Your task to perform on an android device: Add "usb-c to usb-a" to the cart on bestbuy Image 0: 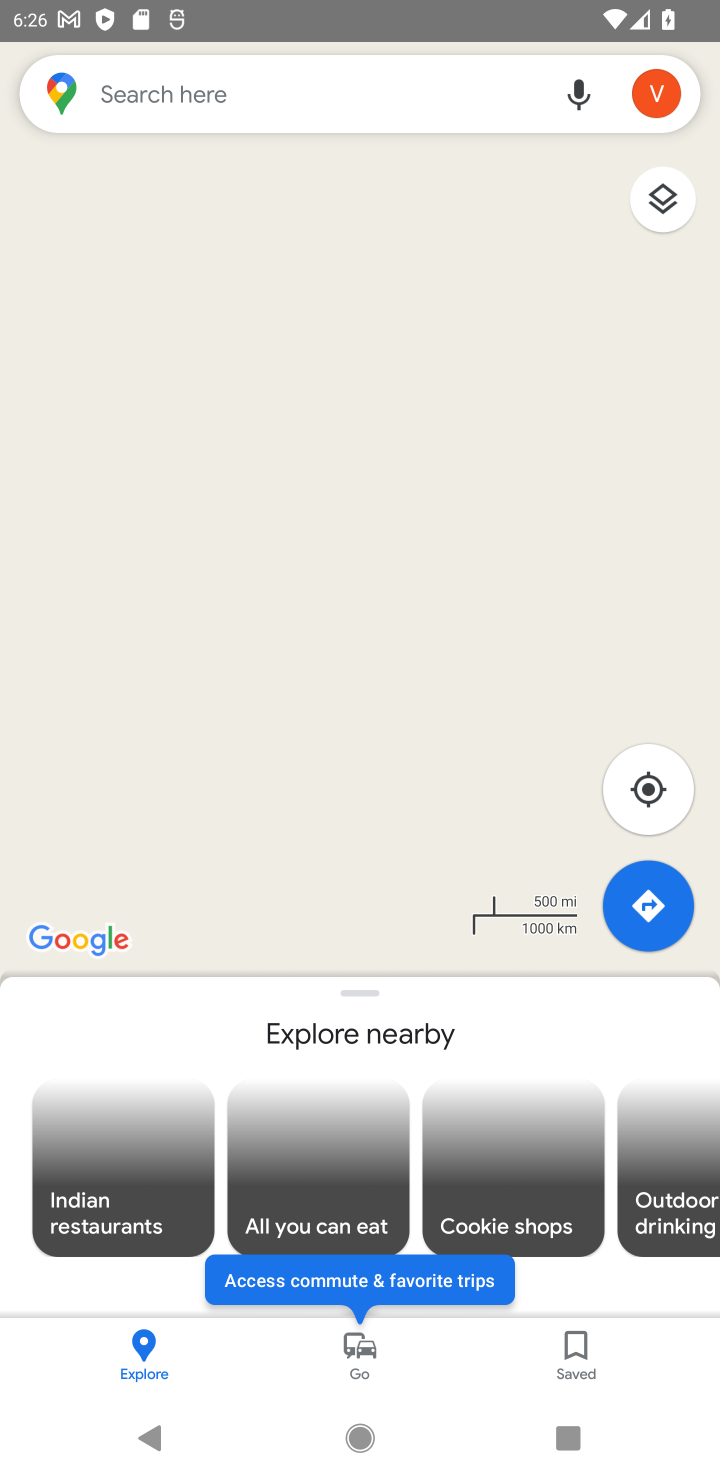
Step 0: press home button
Your task to perform on an android device: Add "usb-c to usb-a" to the cart on bestbuy Image 1: 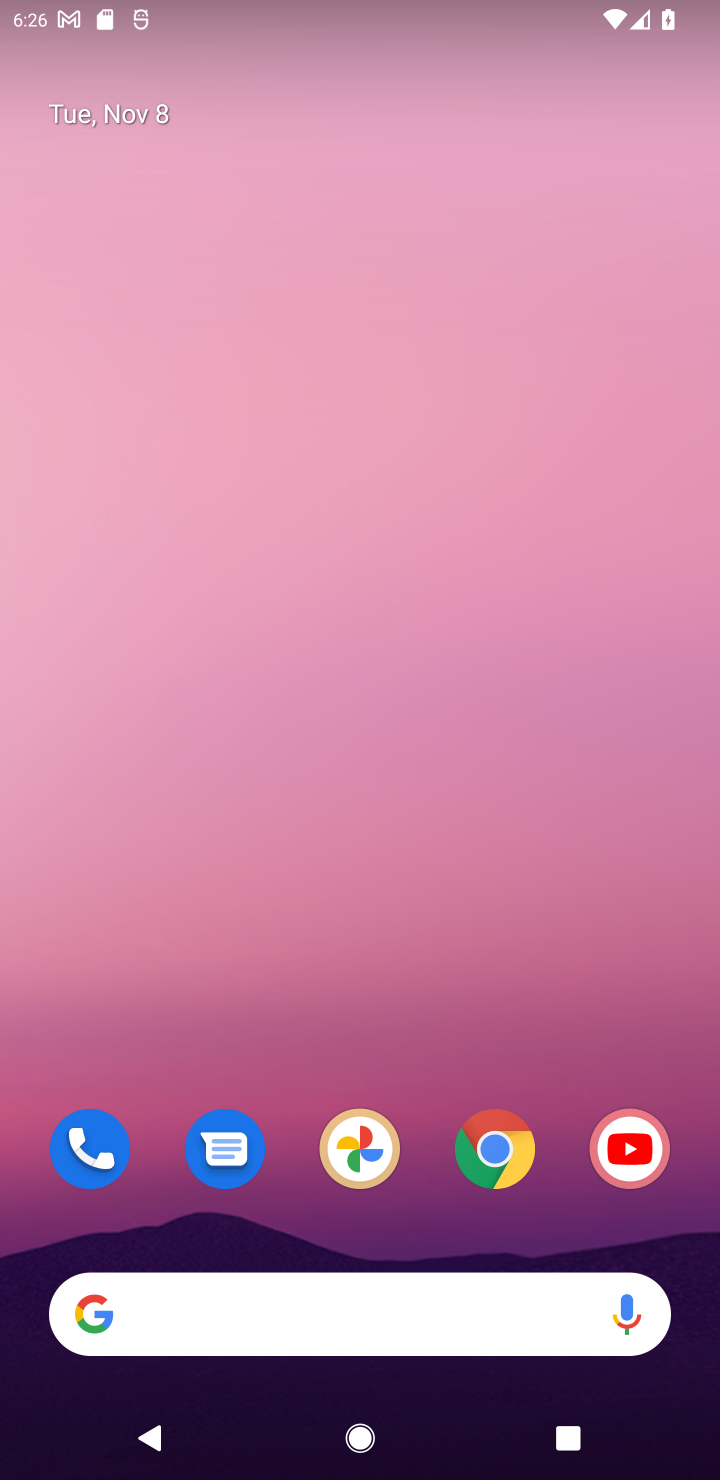
Step 1: click (504, 1148)
Your task to perform on an android device: Add "usb-c to usb-a" to the cart on bestbuy Image 2: 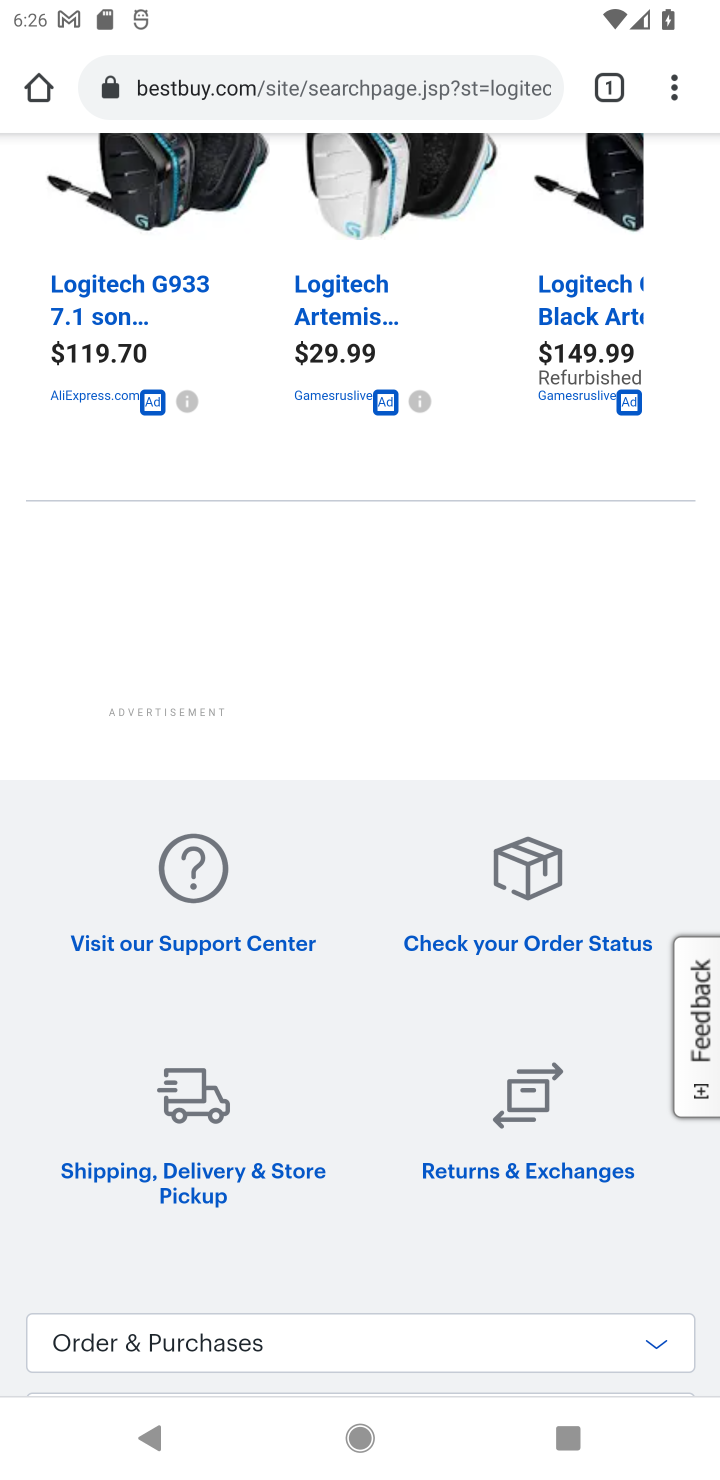
Step 2: click (455, 78)
Your task to perform on an android device: Add "usb-c to usb-a" to the cart on bestbuy Image 3: 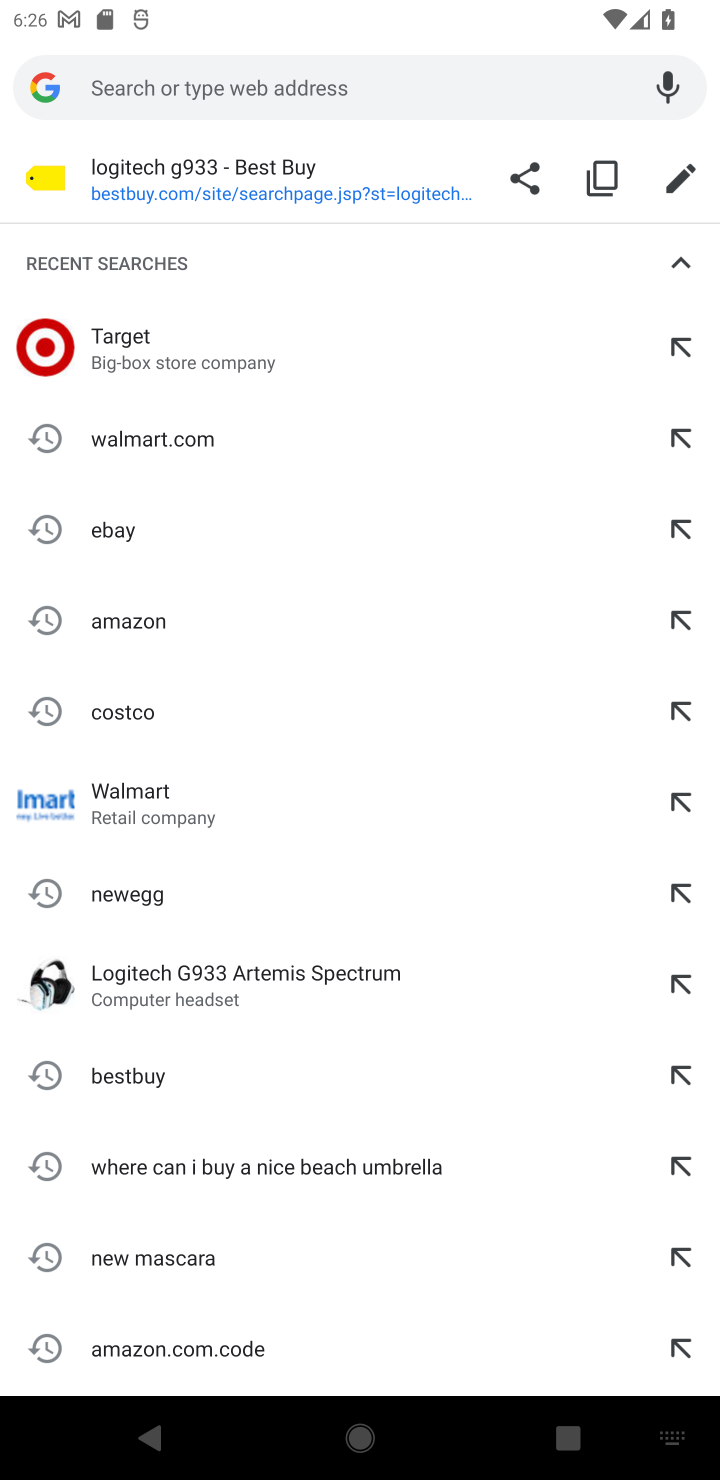
Step 3: type "bestbuy"
Your task to perform on an android device: Add "usb-c to usb-a" to the cart on bestbuy Image 4: 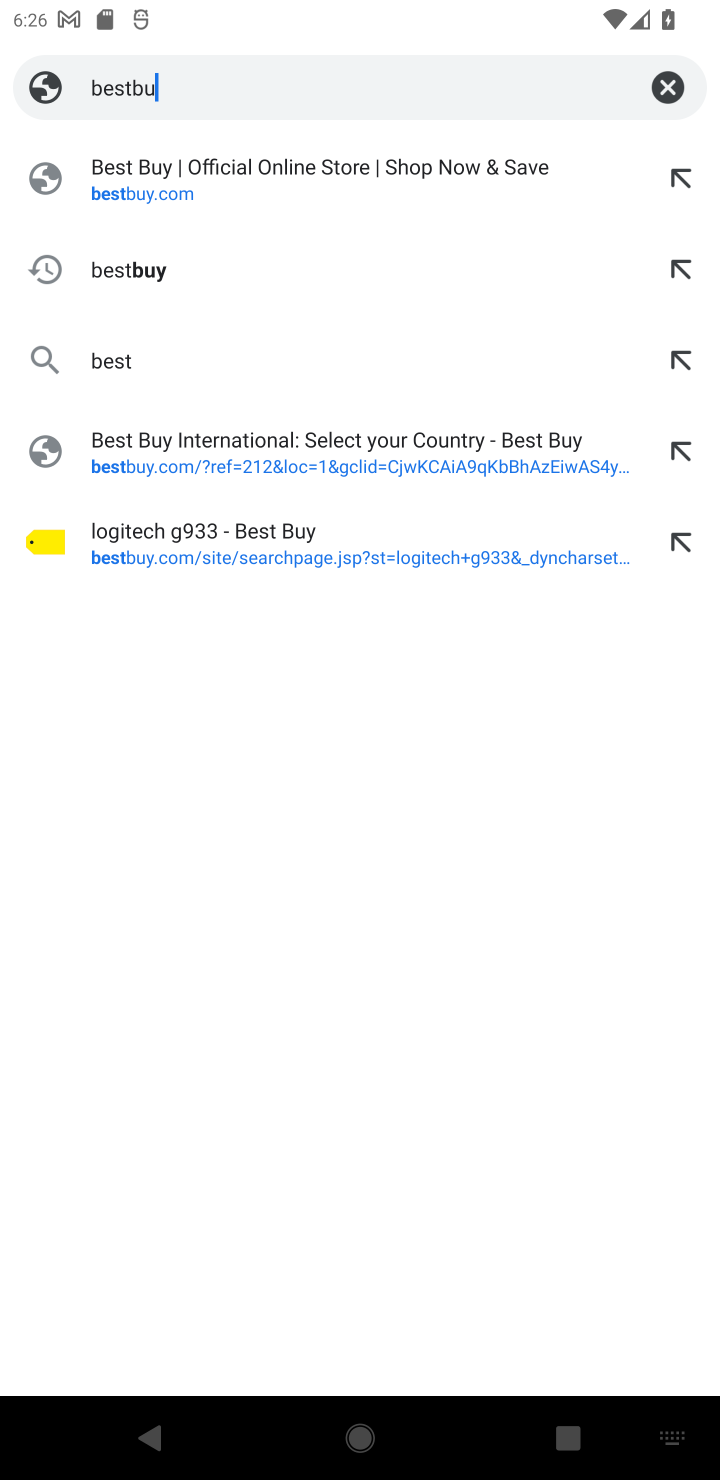
Step 4: press enter
Your task to perform on an android device: Add "usb-c to usb-a" to the cart on bestbuy Image 5: 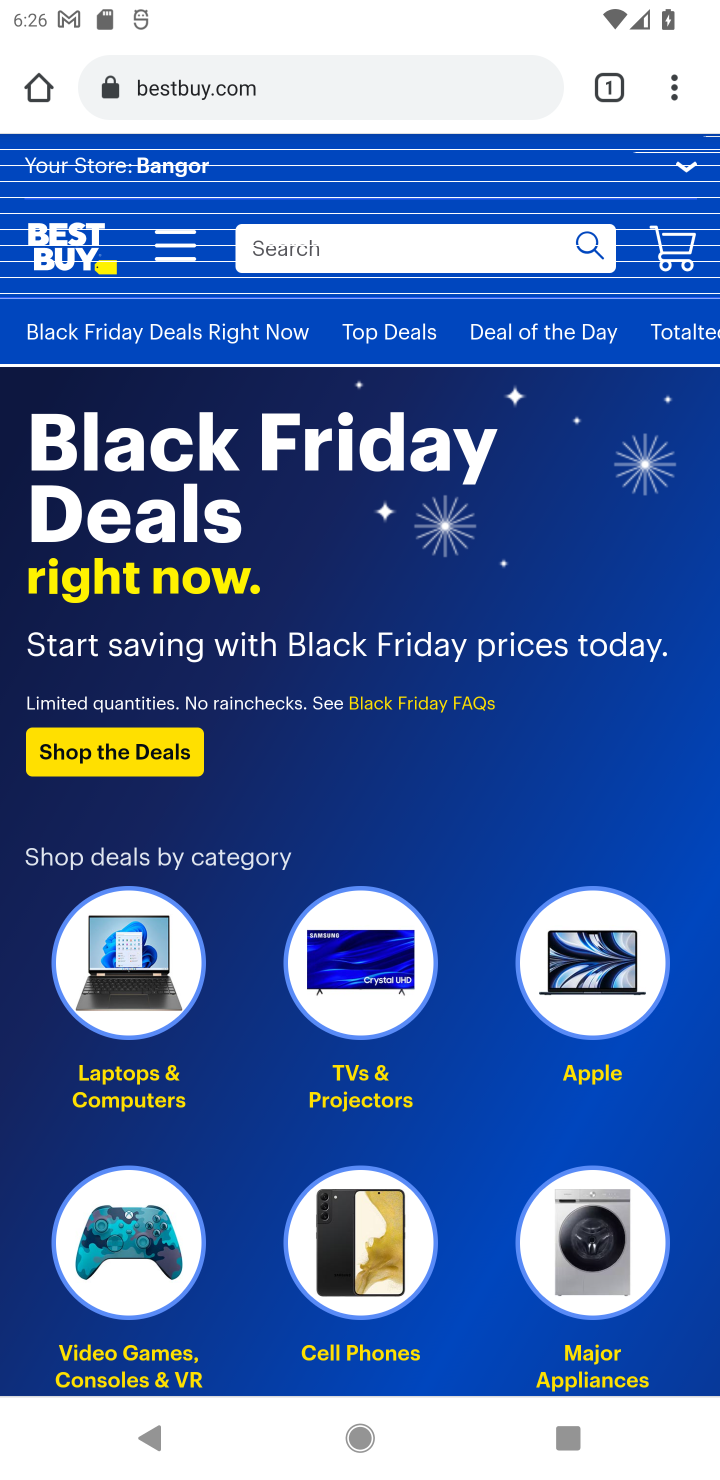
Step 5: click (413, 248)
Your task to perform on an android device: Add "usb-c to usb-a" to the cart on bestbuy Image 6: 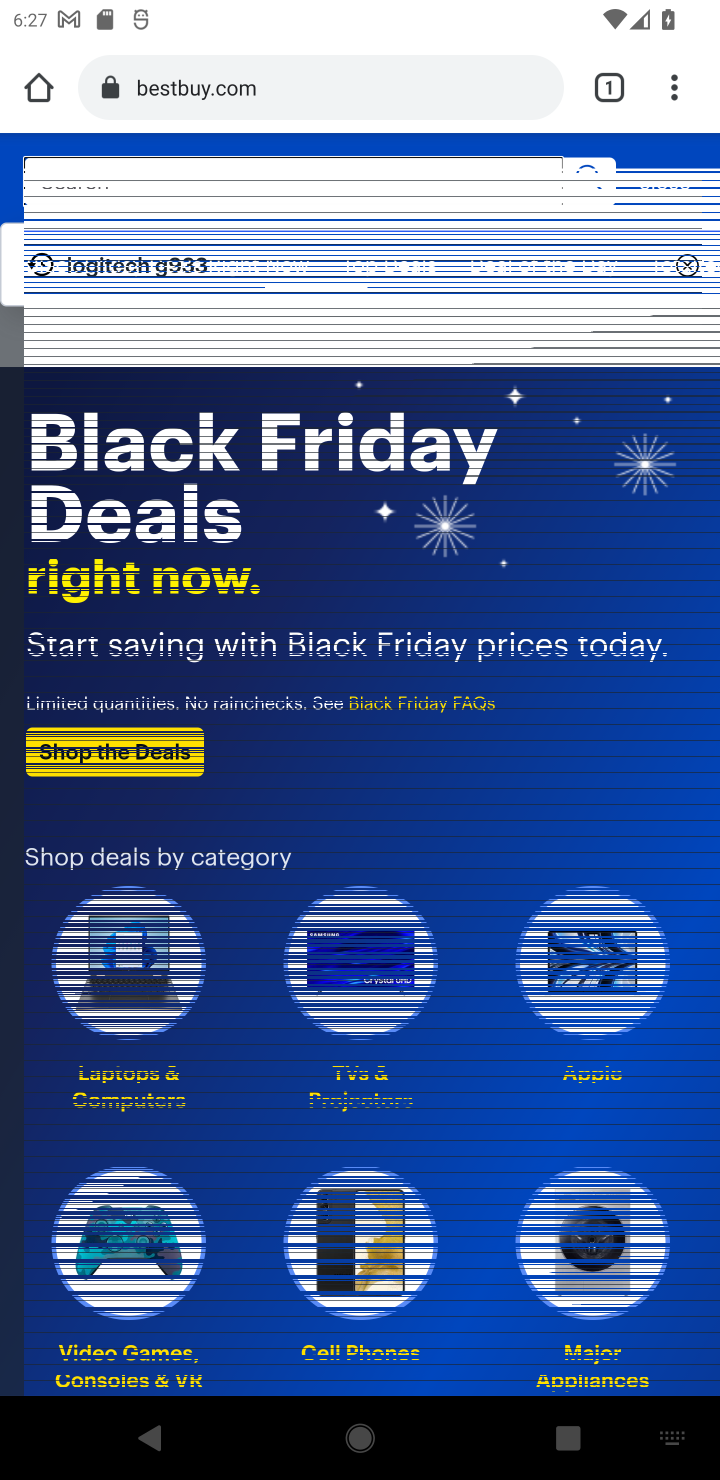
Step 6: type "usb-c to usb-a"
Your task to perform on an android device: Add "usb-c to usb-a" to the cart on bestbuy Image 7: 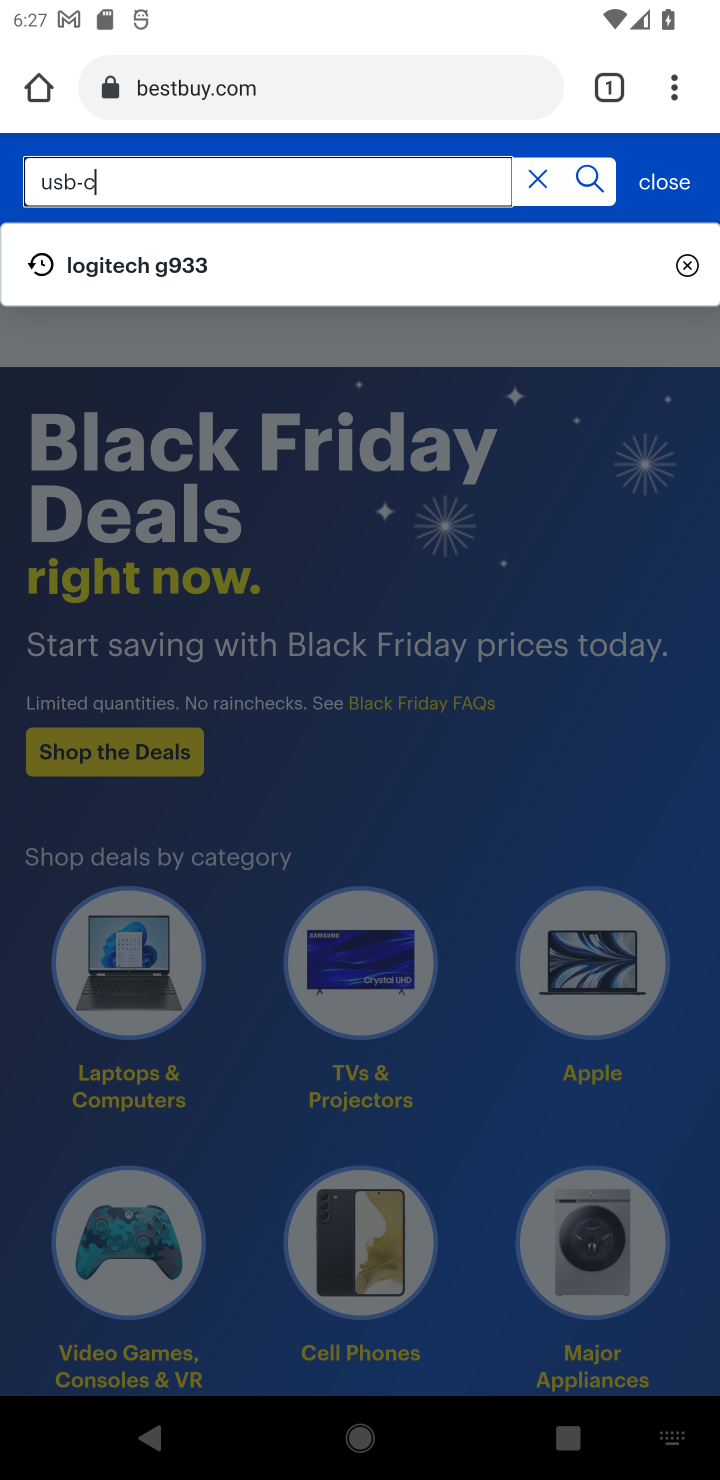
Step 7: press enter
Your task to perform on an android device: Add "usb-c to usb-a" to the cart on bestbuy Image 8: 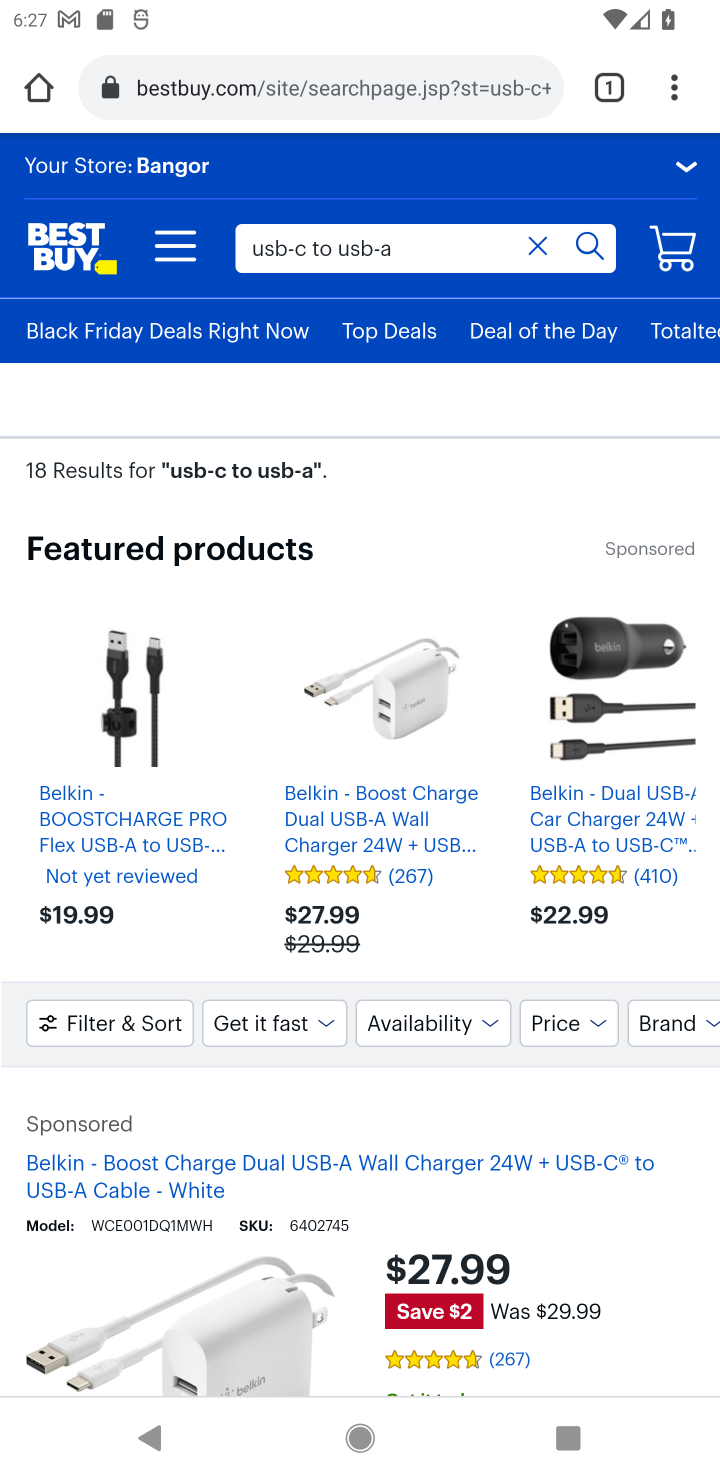
Step 8: drag from (347, 1177) to (396, 589)
Your task to perform on an android device: Add "usb-c to usb-a" to the cart on bestbuy Image 9: 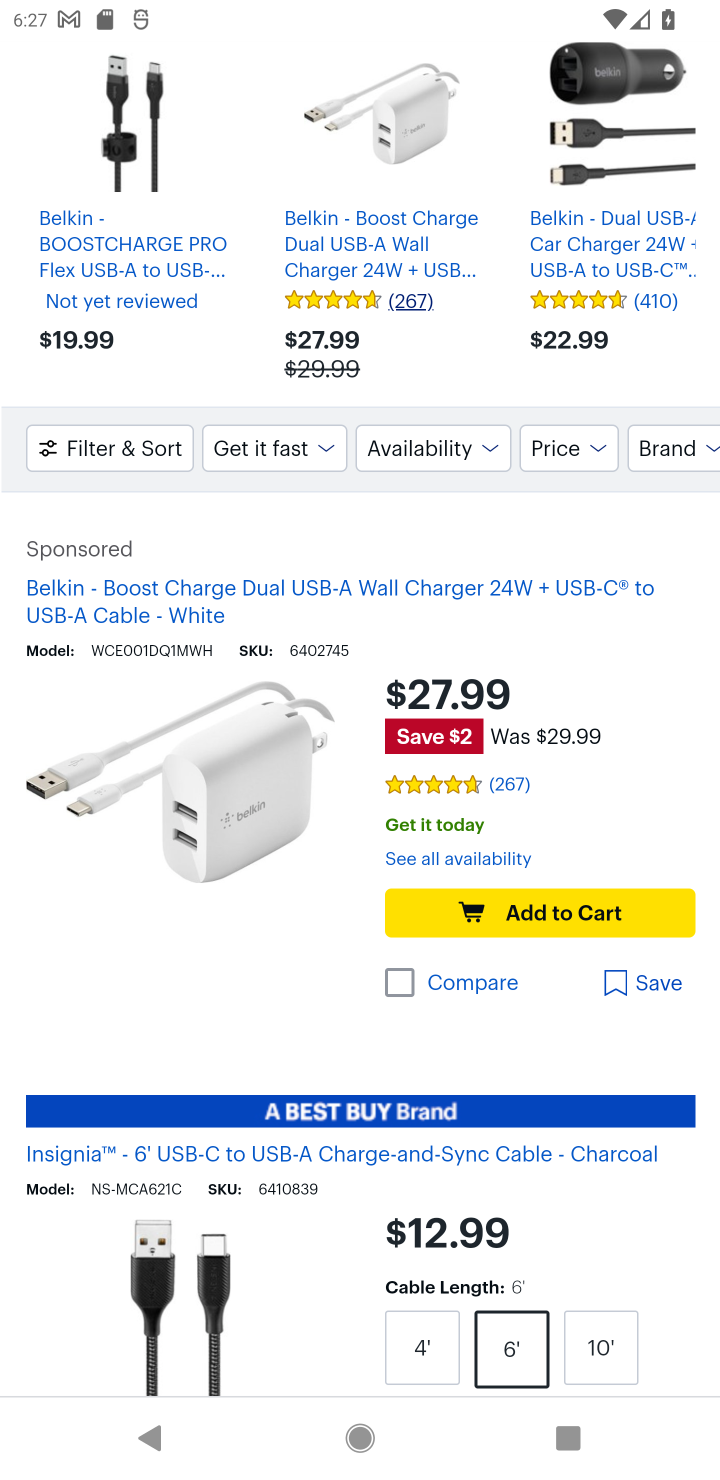
Step 9: click (152, 744)
Your task to perform on an android device: Add "usb-c to usb-a" to the cart on bestbuy Image 10: 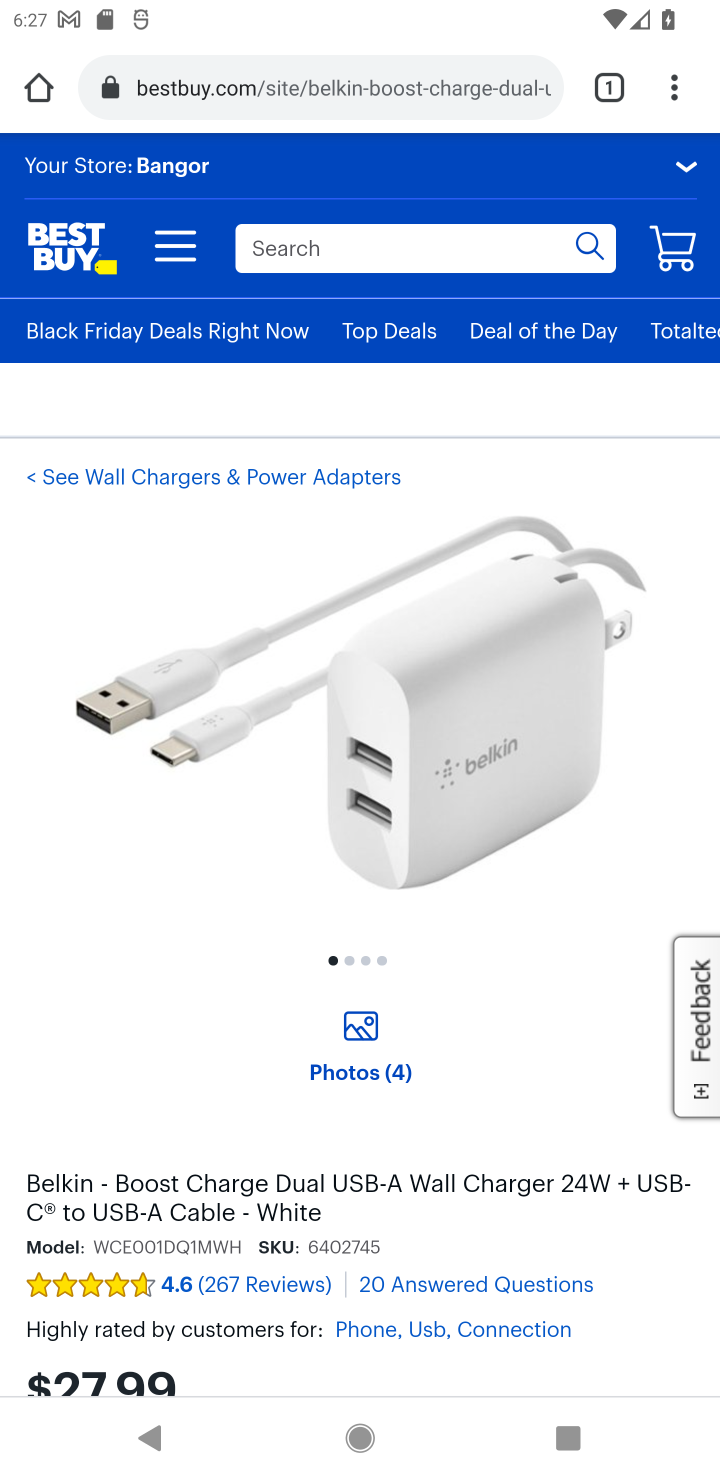
Step 10: drag from (500, 1038) to (506, 554)
Your task to perform on an android device: Add "usb-c to usb-a" to the cart on bestbuy Image 11: 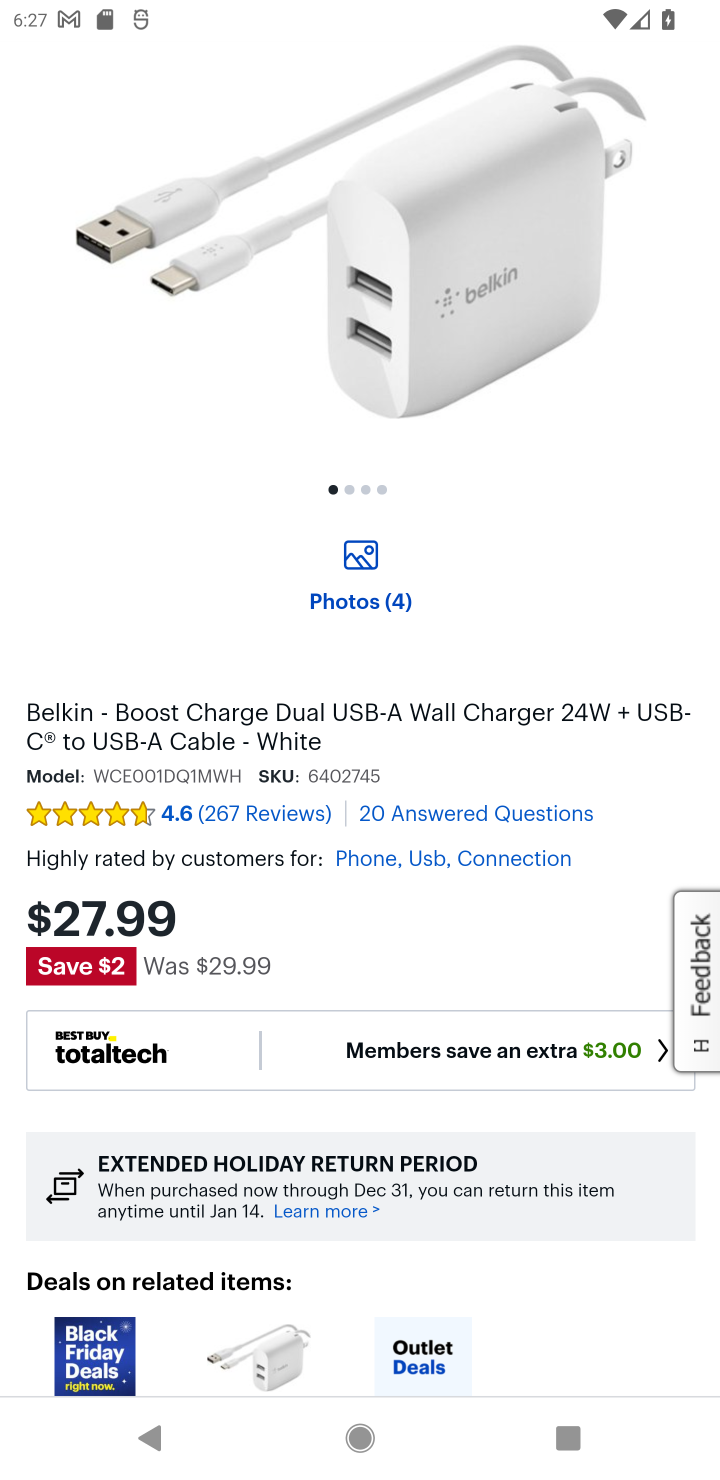
Step 11: drag from (501, 922) to (445, 438)
Your task to perform on an android device: Add "usb-c to usb-a" to the cart on bestbuy Image 12: 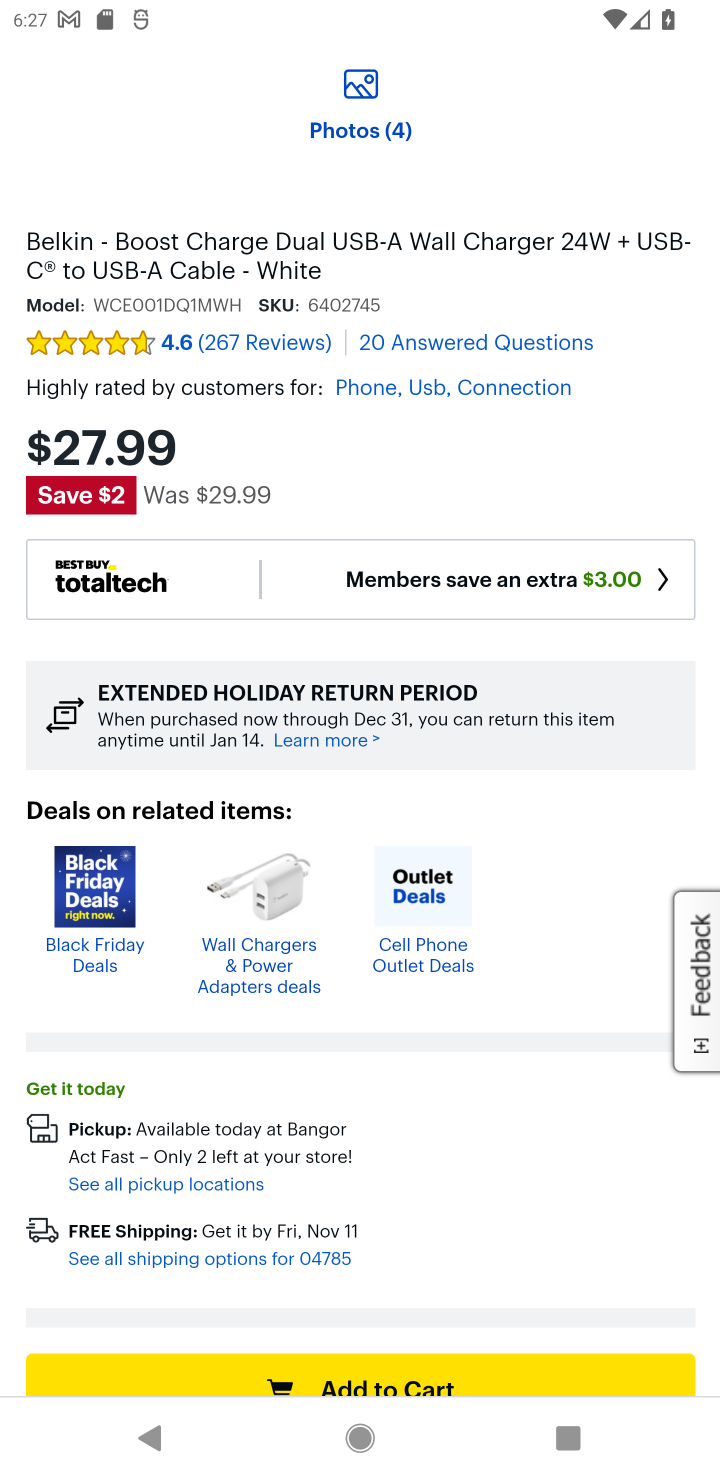
Step 12: drag from (472, 1120) to (408, 597)
Your task to perform on an android device: Add "usb-c to usb-a" to the cart on bestbuy Image 13: 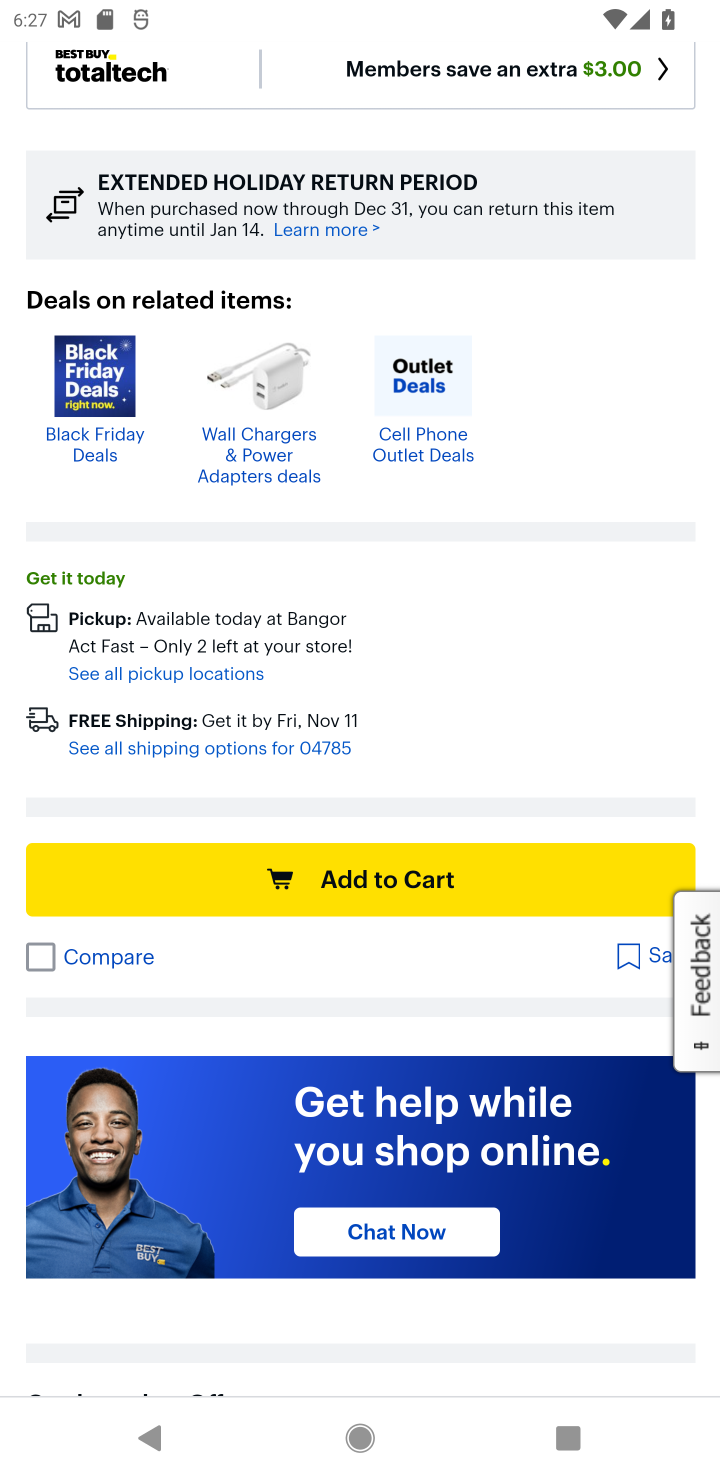
Step 13: click (417, 872)
Your task to perform on an android device: Add "usb-c to usb-a" to the cart on bestbuy Image 14: 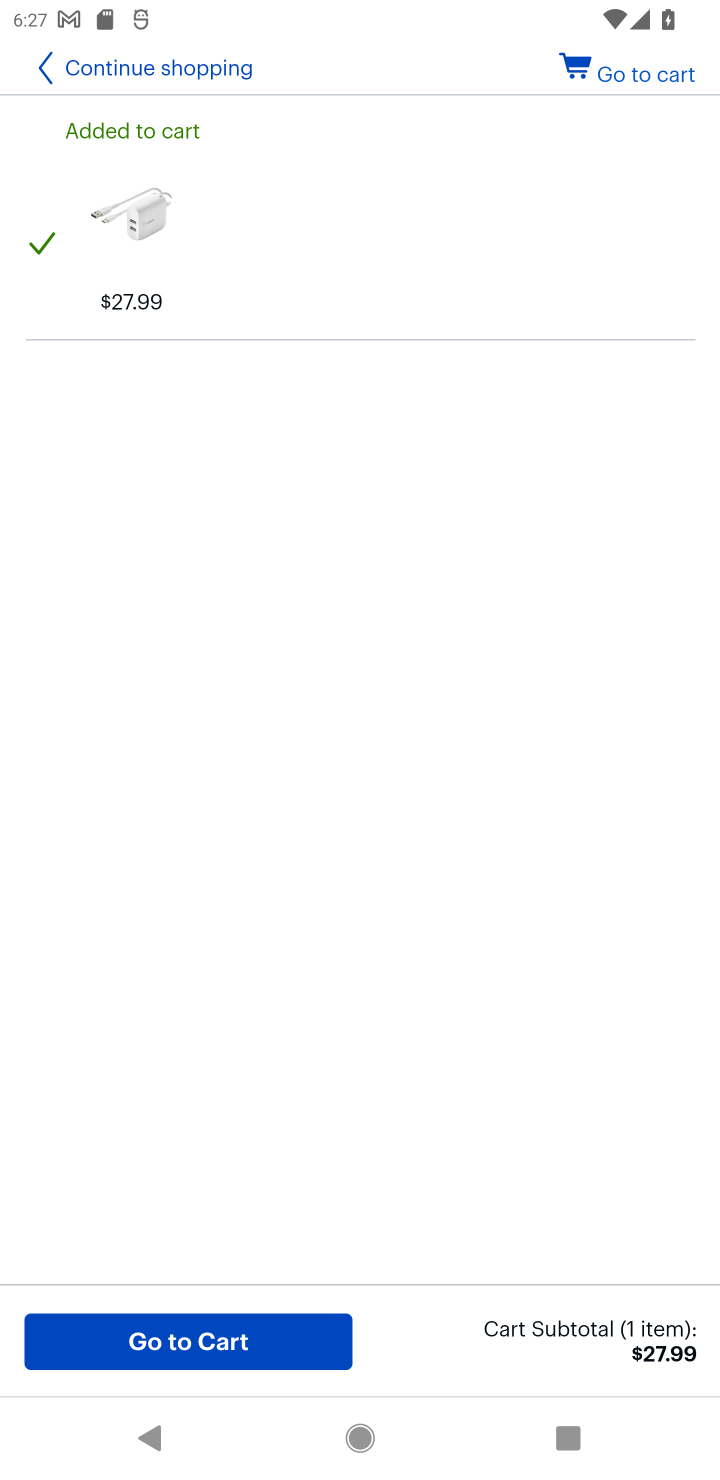
Step 14: task complete